Your task to perform on an android device: Add "logitech g pro" to the cart on ebay.com, then select checkout. Image 0: 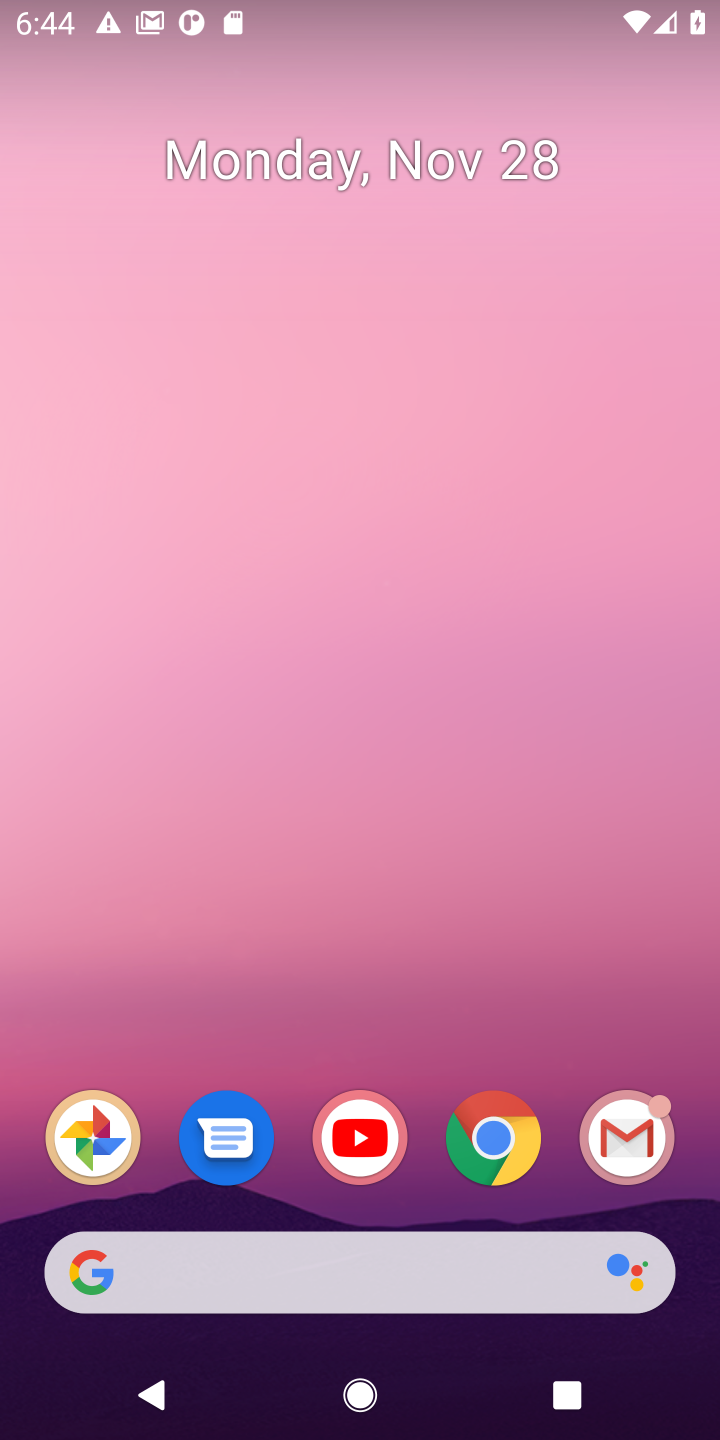
Step 0: click (495, 1157)
Your task to perform on an android device: Add "logitech g pro" to the cart on ebay.com, then select checkout. Image 1: 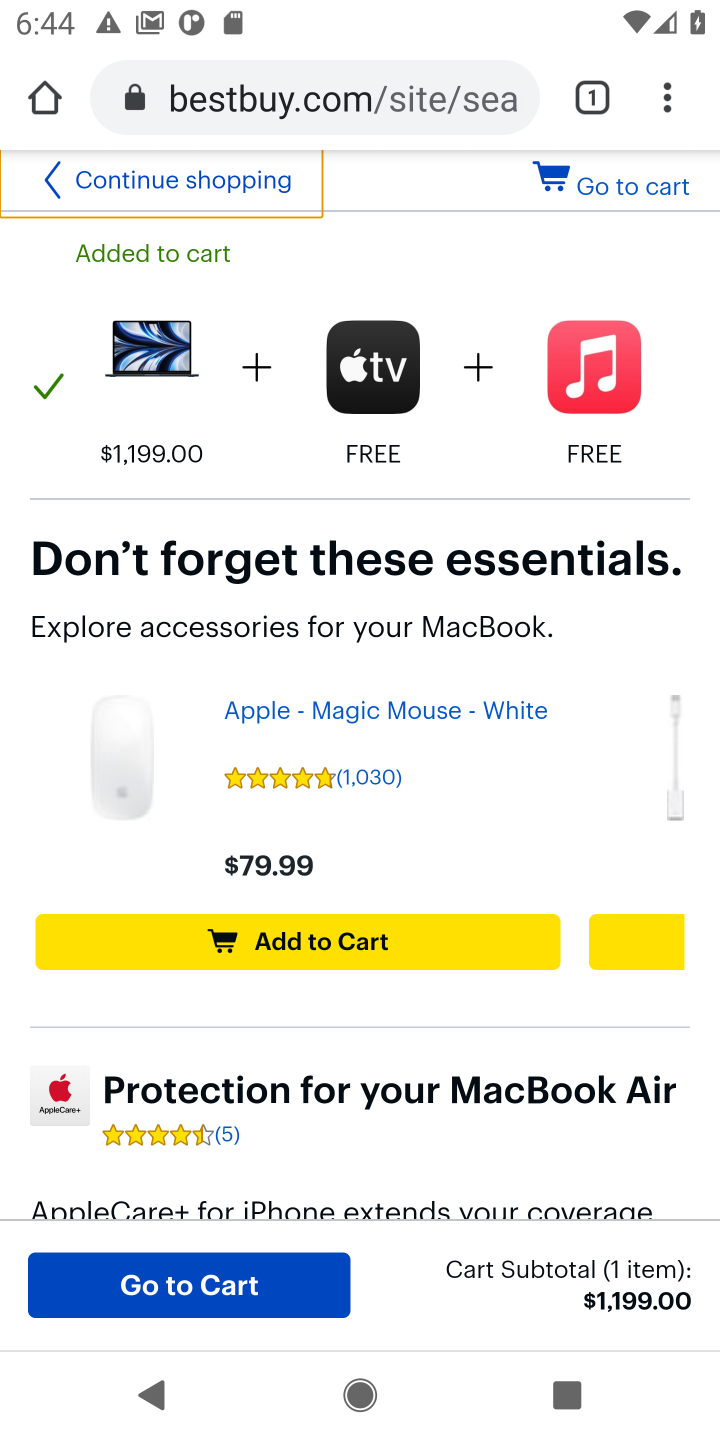
Step 1: click (326, 92)
Your task to perform on an android device: Add "logitech g pro" to the cart on ebay.com, then select checkout. Image 2: 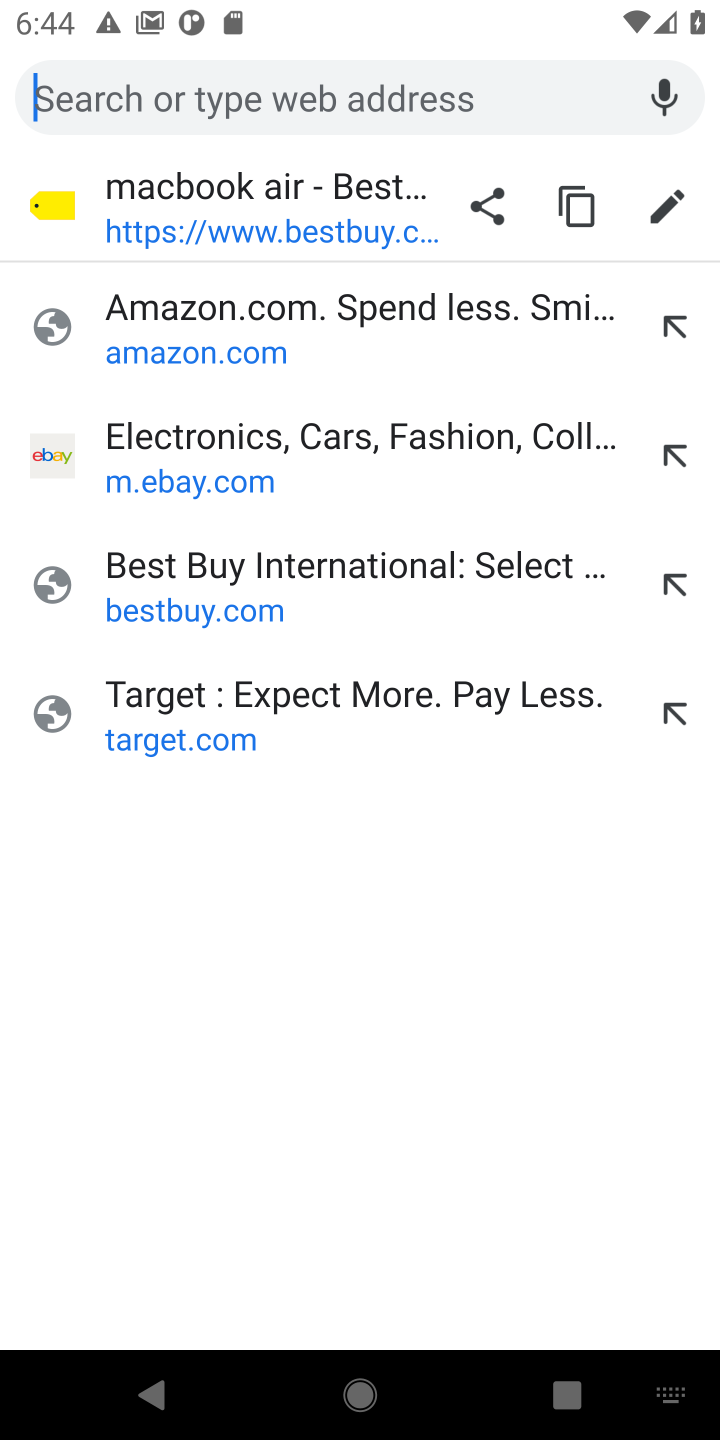
Step 2: click (151, 456)
Your task to perform on an android device: Add "logitech g pro" to the cart on ebay.com, then select checkout. Image 3: 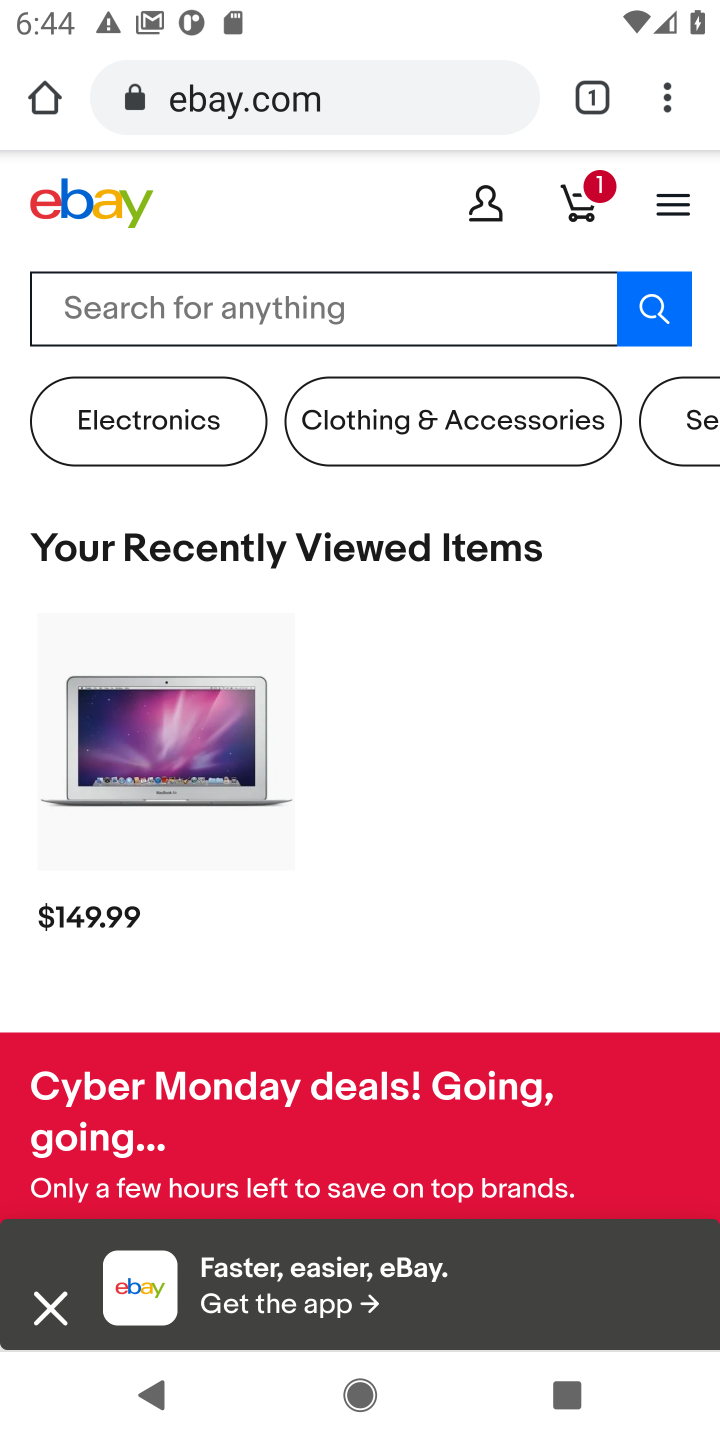
Step 3: click (214, 306)
Your task to perform on an android device: Add "logitech g pro" to the cart on ebay.com, then select checkout. Image 4: 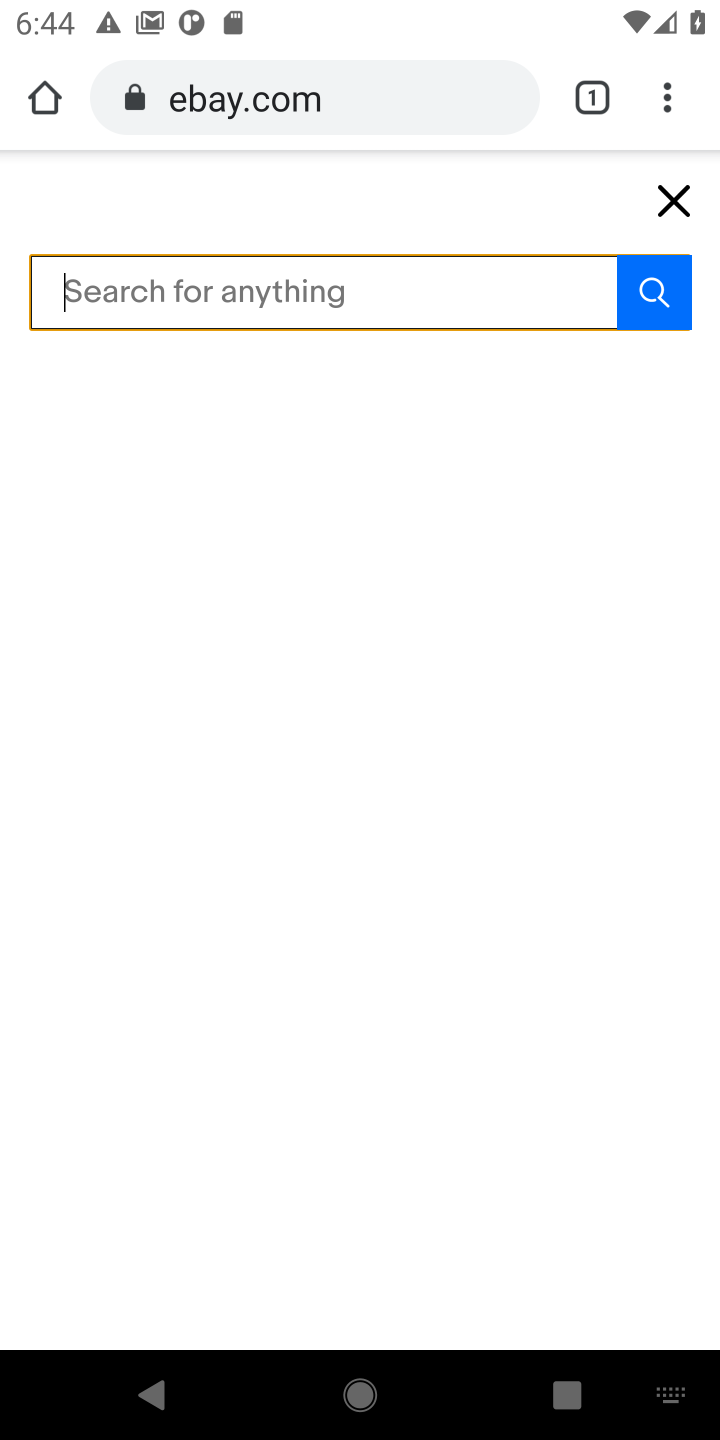
Step 4: type "logitech g pro"
Your task to perform on an android device: Add "logitech g pro" to the cart on ebay.com, then select checkout. Image 5: 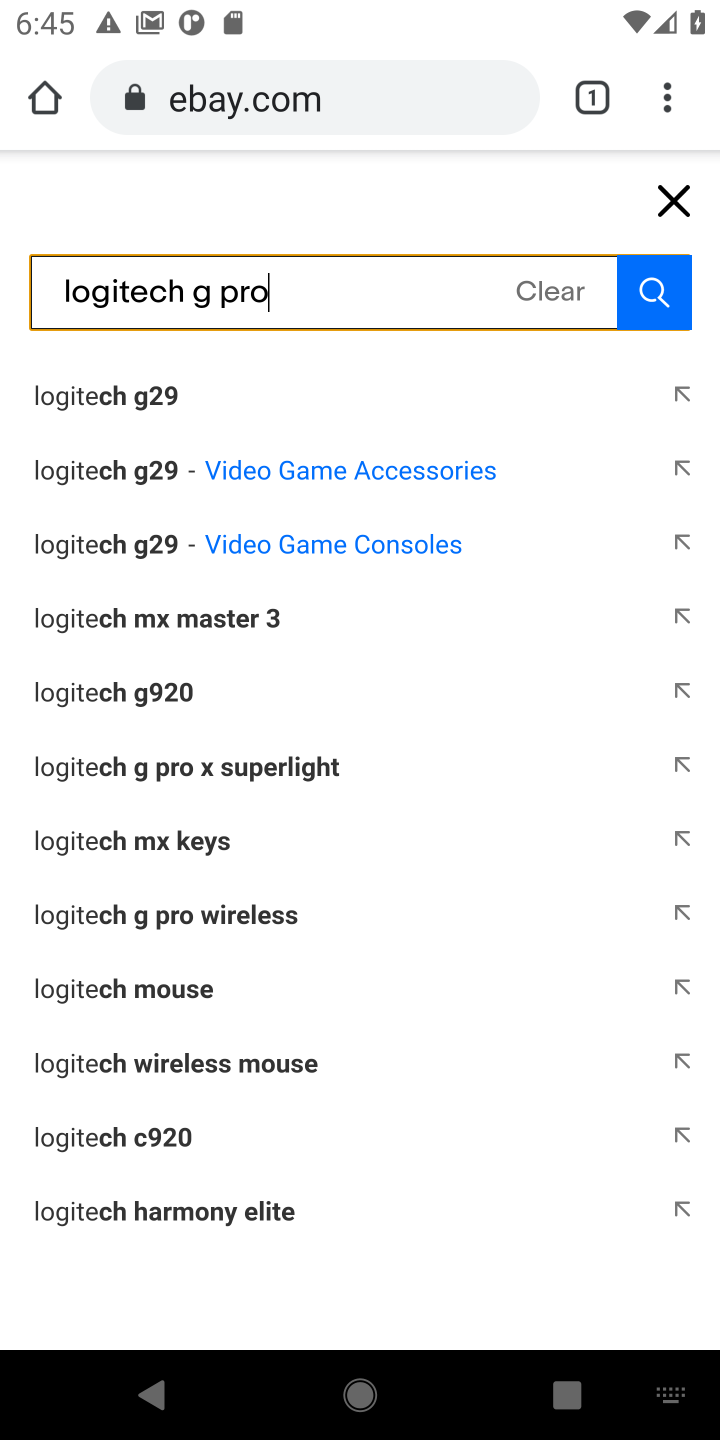
Step 5: click (628, 295)
Your task to perform on an android device: Add "logitech g pro" to the cart on ebay.com, then select checkout. Image 6: 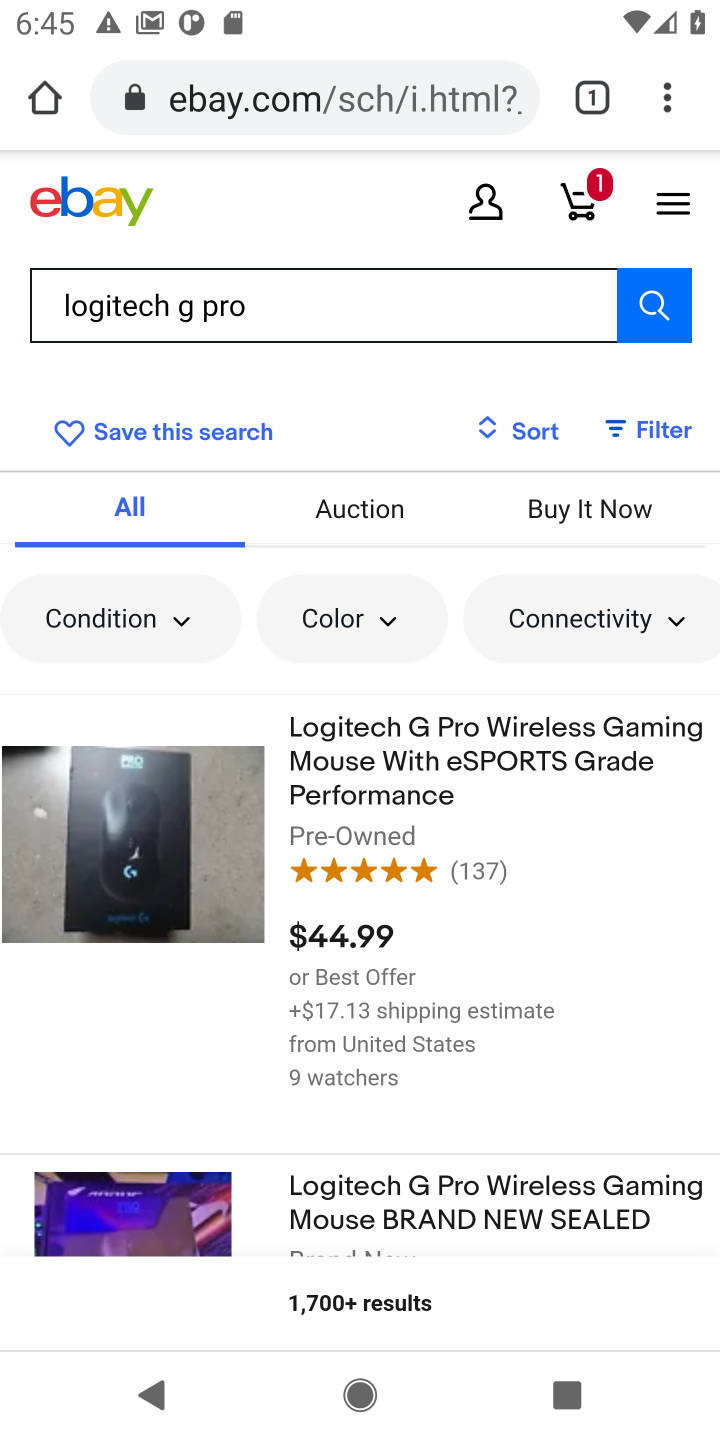
Step 6: click (421, 769)
Your task to perform on an android device: Add "logitech g pro" to the cart on ebay.com, then select checkout. Image 7: 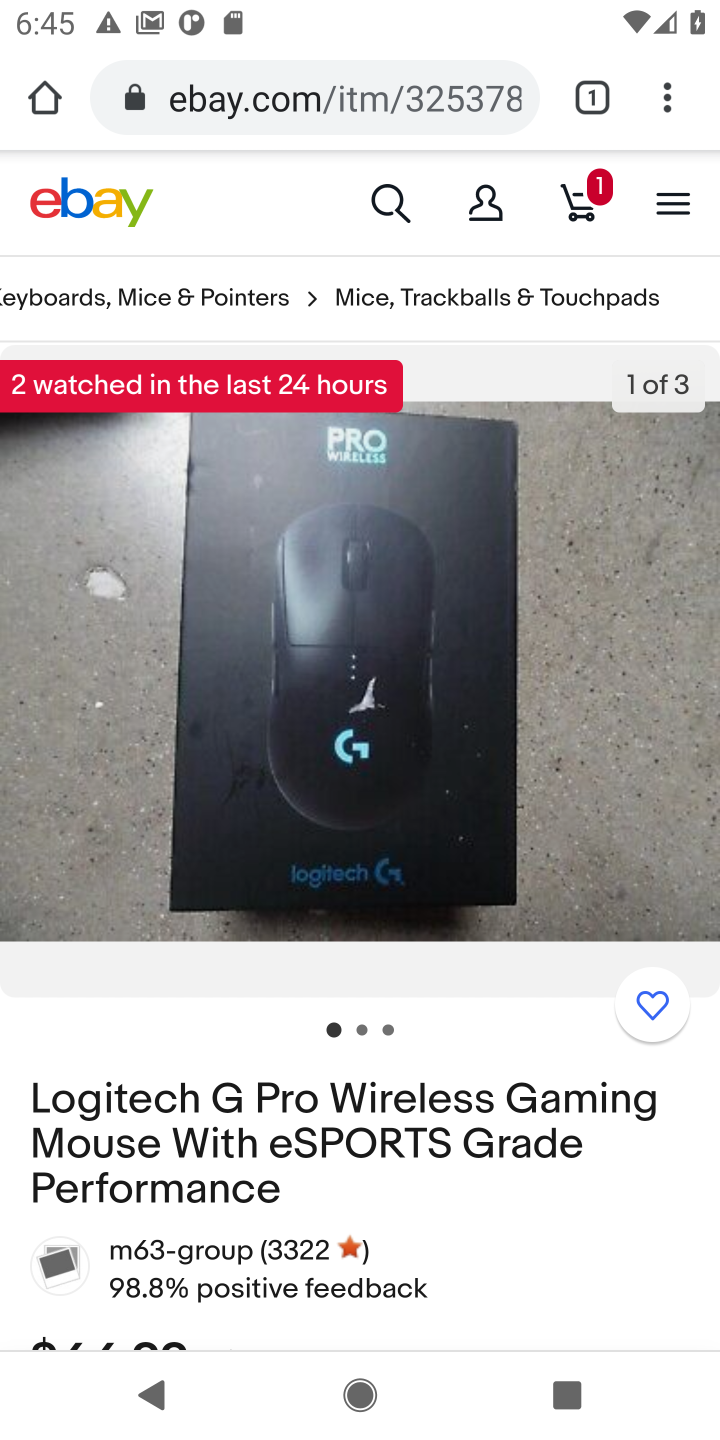
Step 7: drag from (427, 1051) to (405, 639)
Your task to perform on an android device: Add "logitech g pro" to the cart on ebay.com, then select checkout. Image 8: 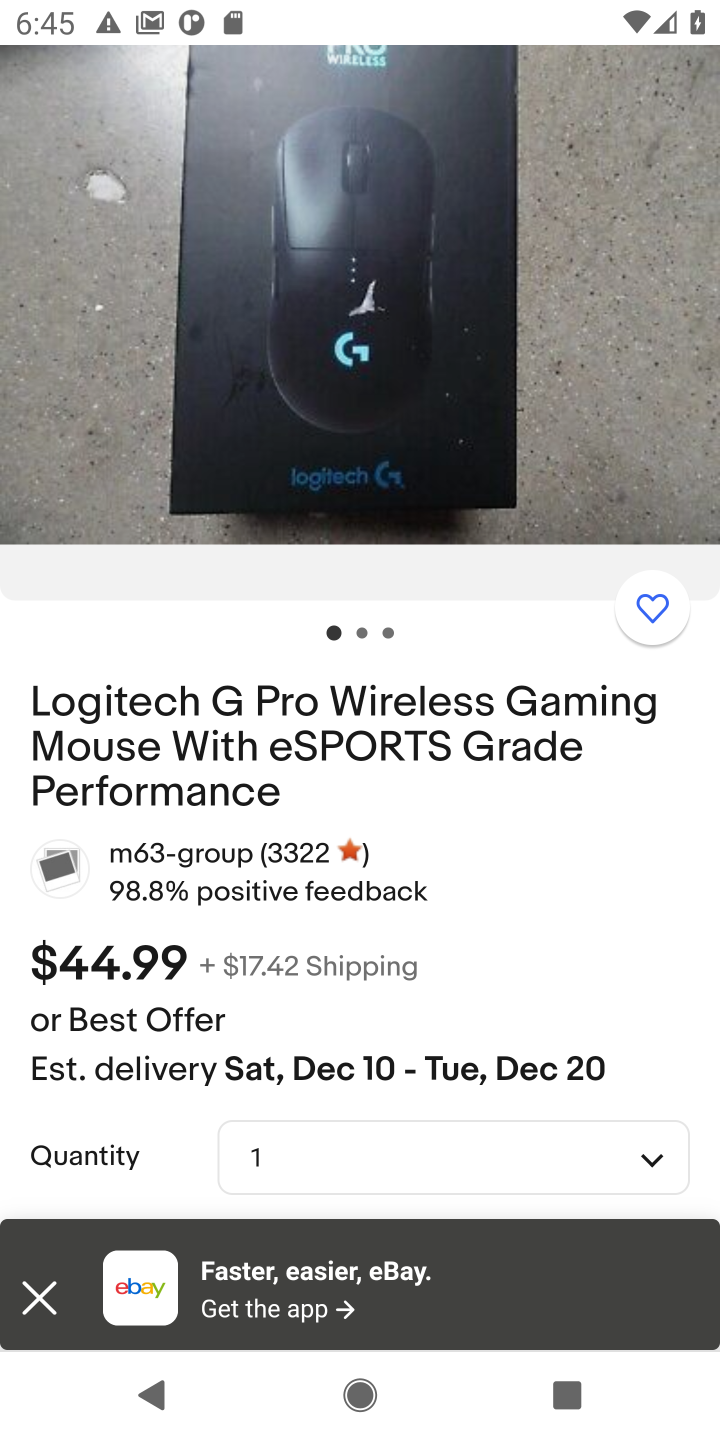
Step 8: drag from (427, 903) to (390, 426)
Your task to perform on an android device: Add "logitech g pro" to the cart on ebay.com, then select checkout. Image 9: 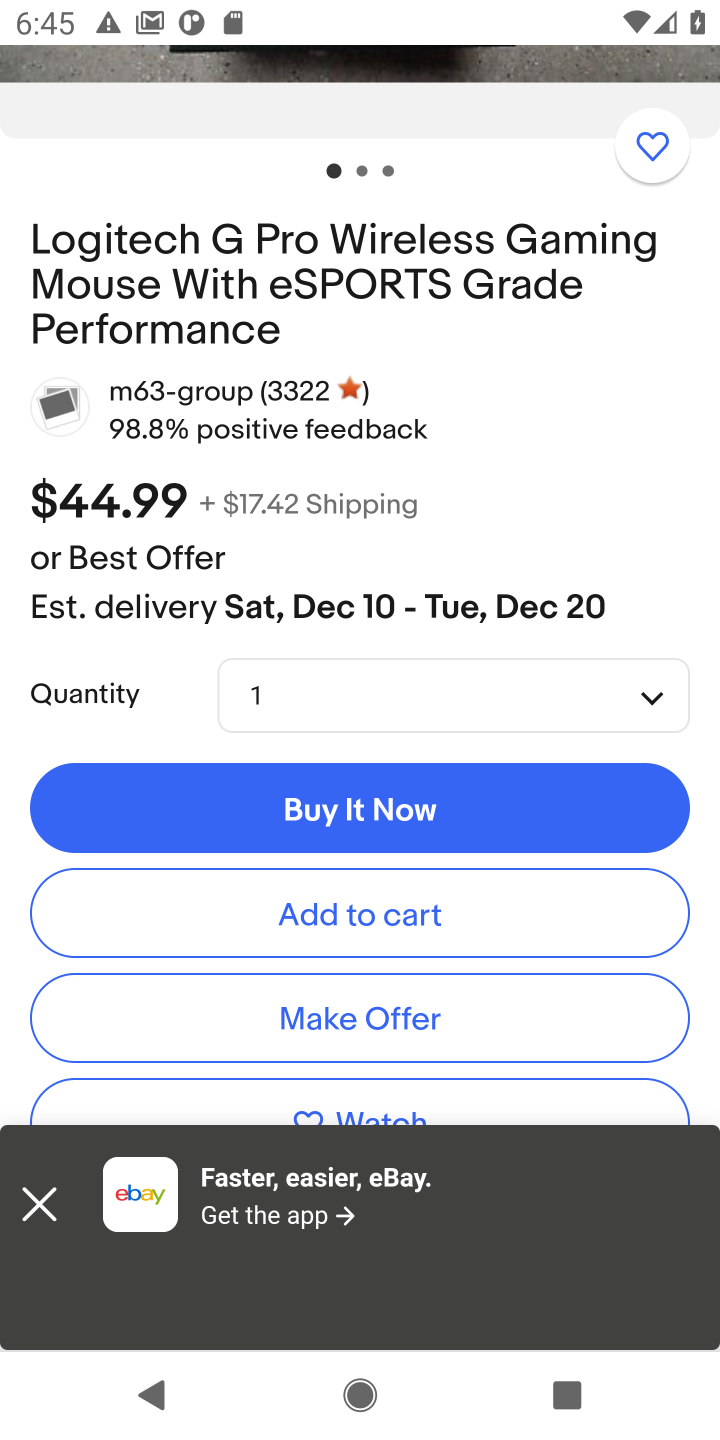
Step 9: click (368, 906)
Your task to perform on an android device: Add "logitech g pro" to the cart on ebay.com, then select checkout. Image 10: 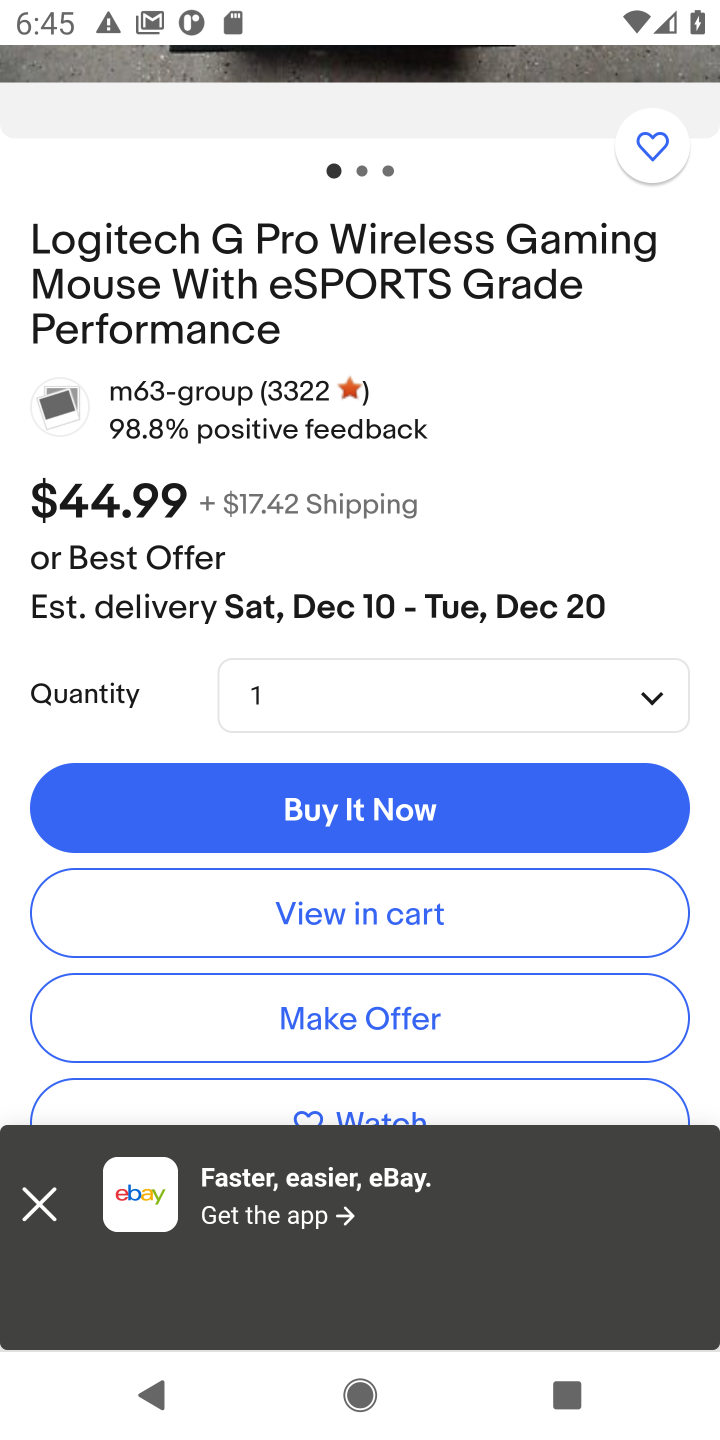
Step 10: click (368, 906)
Your task to perform on an android device: Add "logitech g pro" to the cart on ebay.com, then select checkout. Image 11: 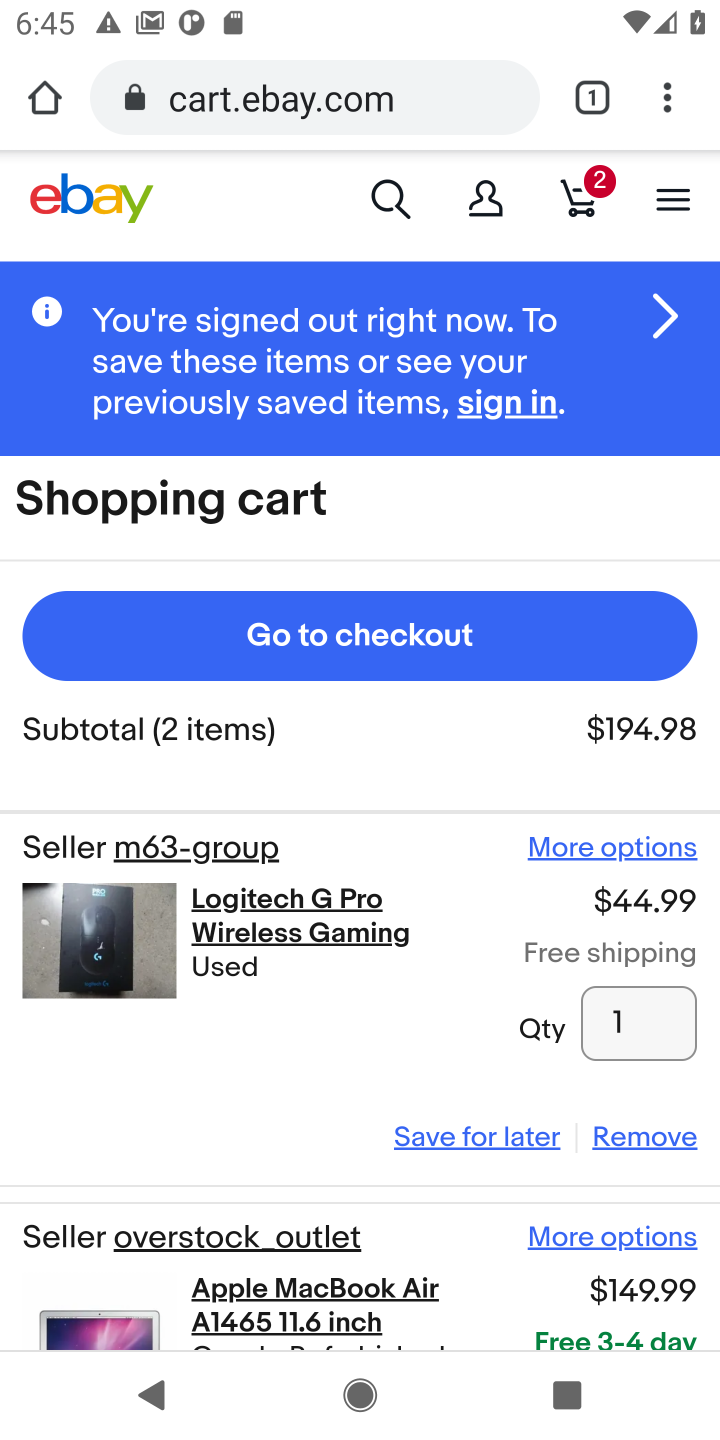
Step 11: click (353, 645)
Your task to perform on an android device: Add "logitech g pro" to the cart on ebay.com, then select checkout. Image 12: 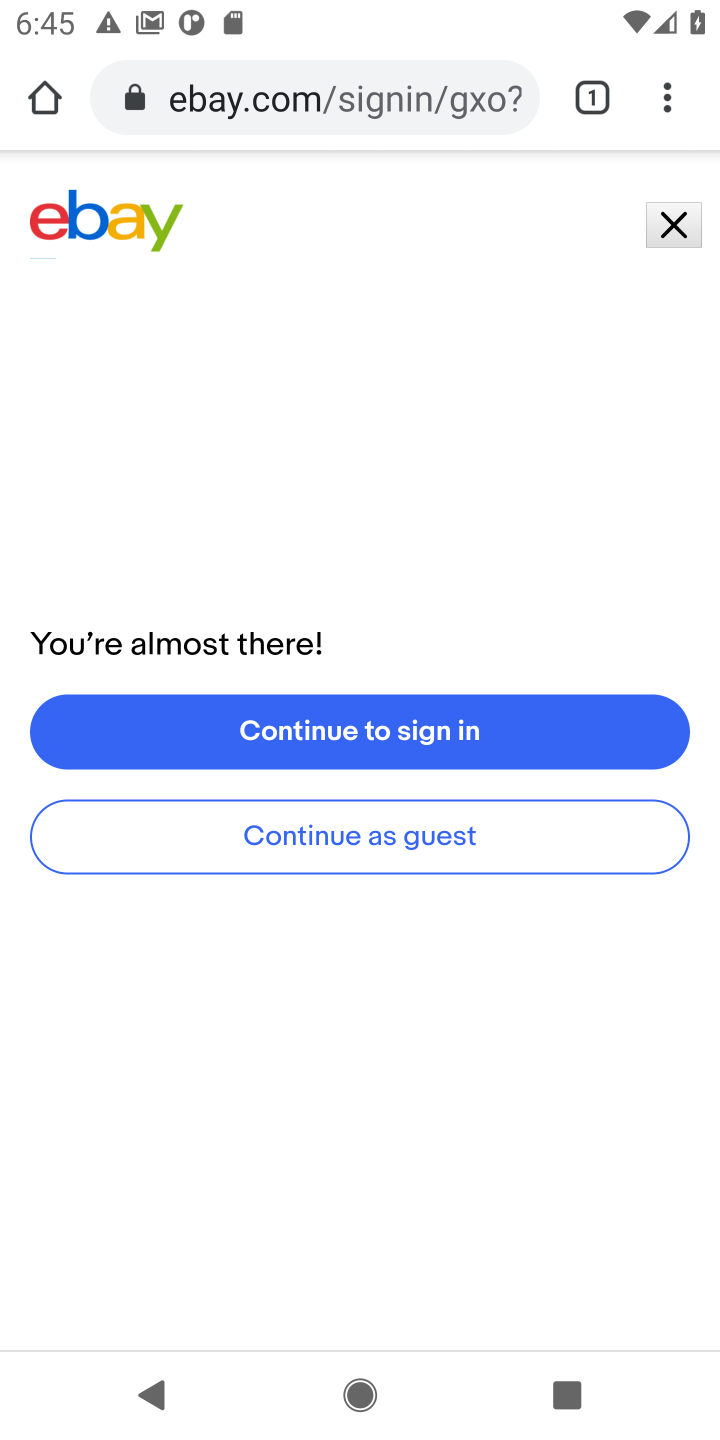
Step 12: task complete